Your task to perform on an android device: turn on sleep mode Image 0: 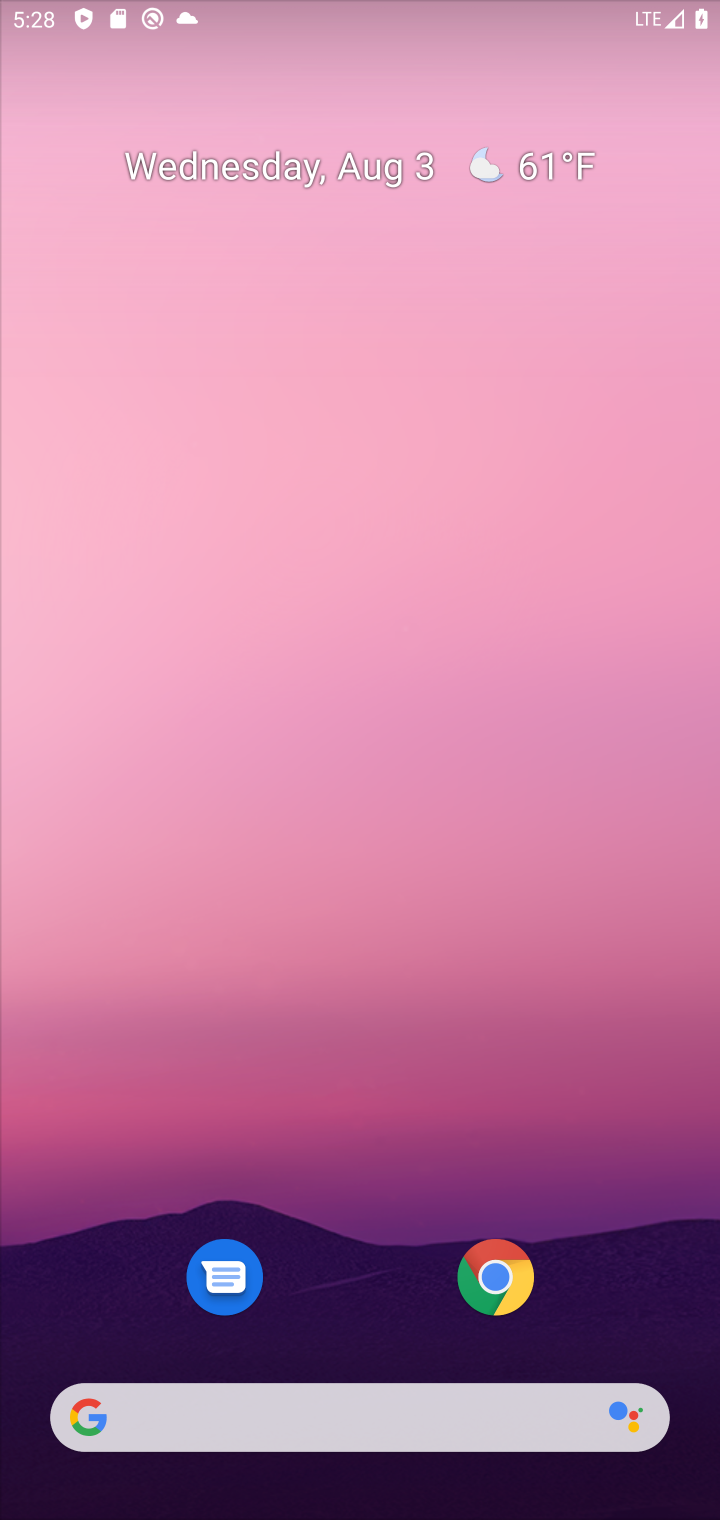
Step 0: press back button
Your task to perform on an android device: turn on sleep mode Image 1: 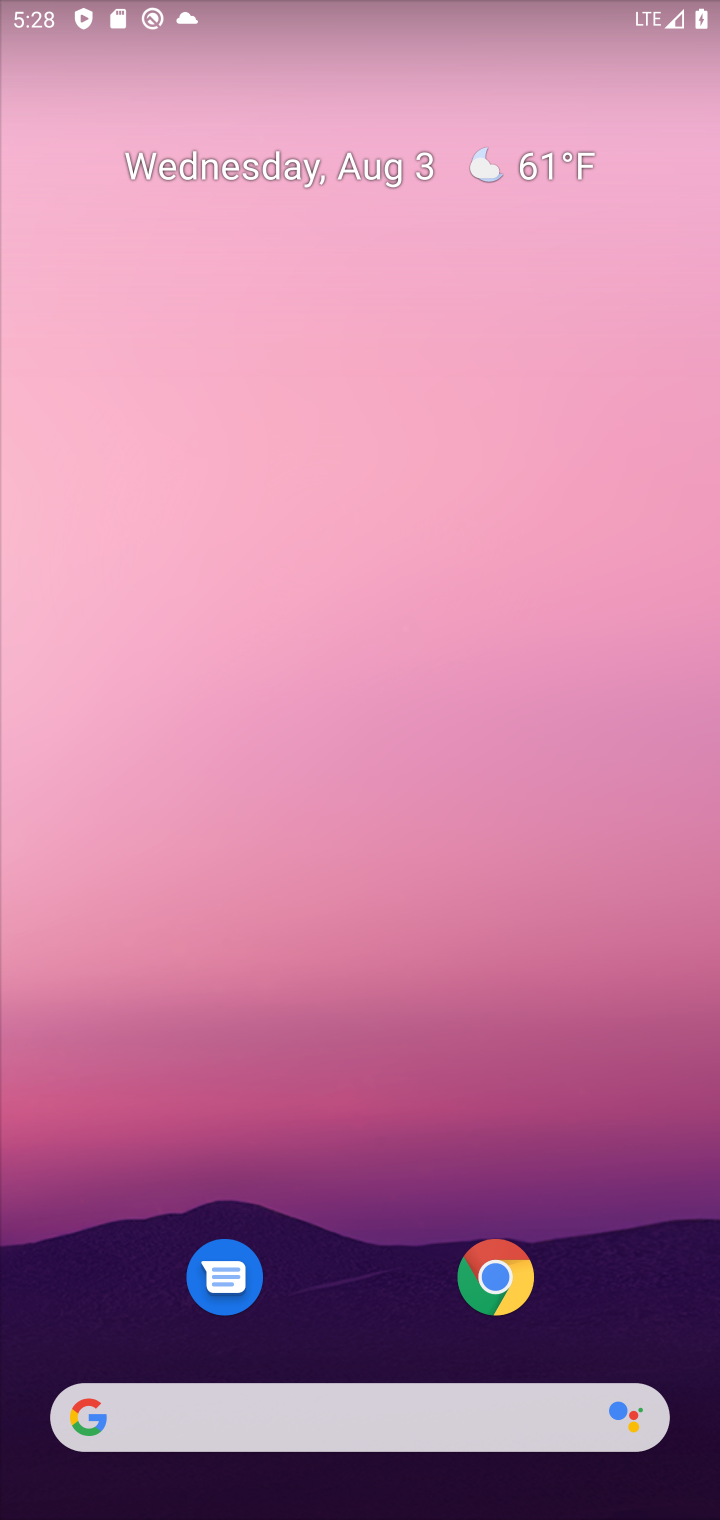
Step 1: drag from (403, 1215) to (226, 920)
Your task to perform on an android device: turn on sleep mode Image 2: 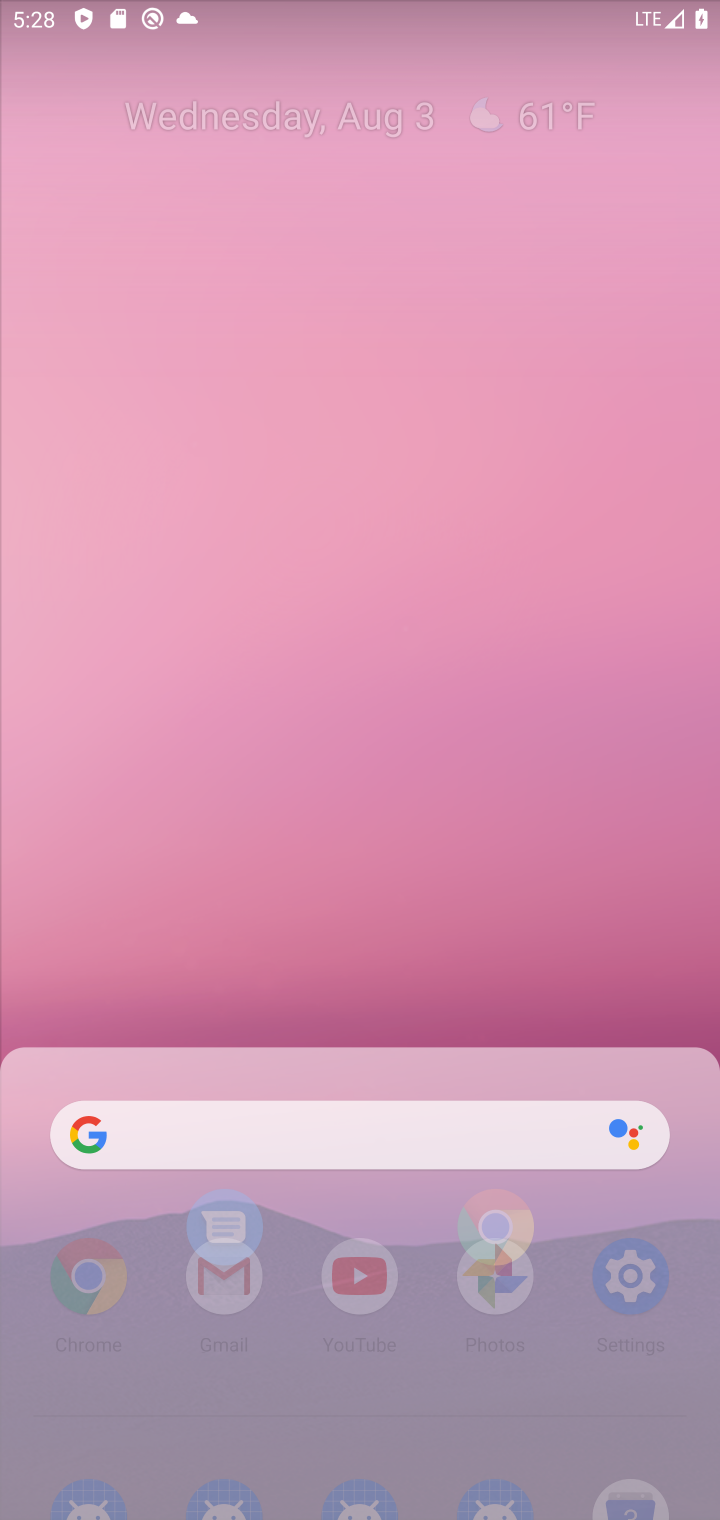
Step 2: click (630, 357)
Your task to perform on an android device: turn on sleep mode Image 3: 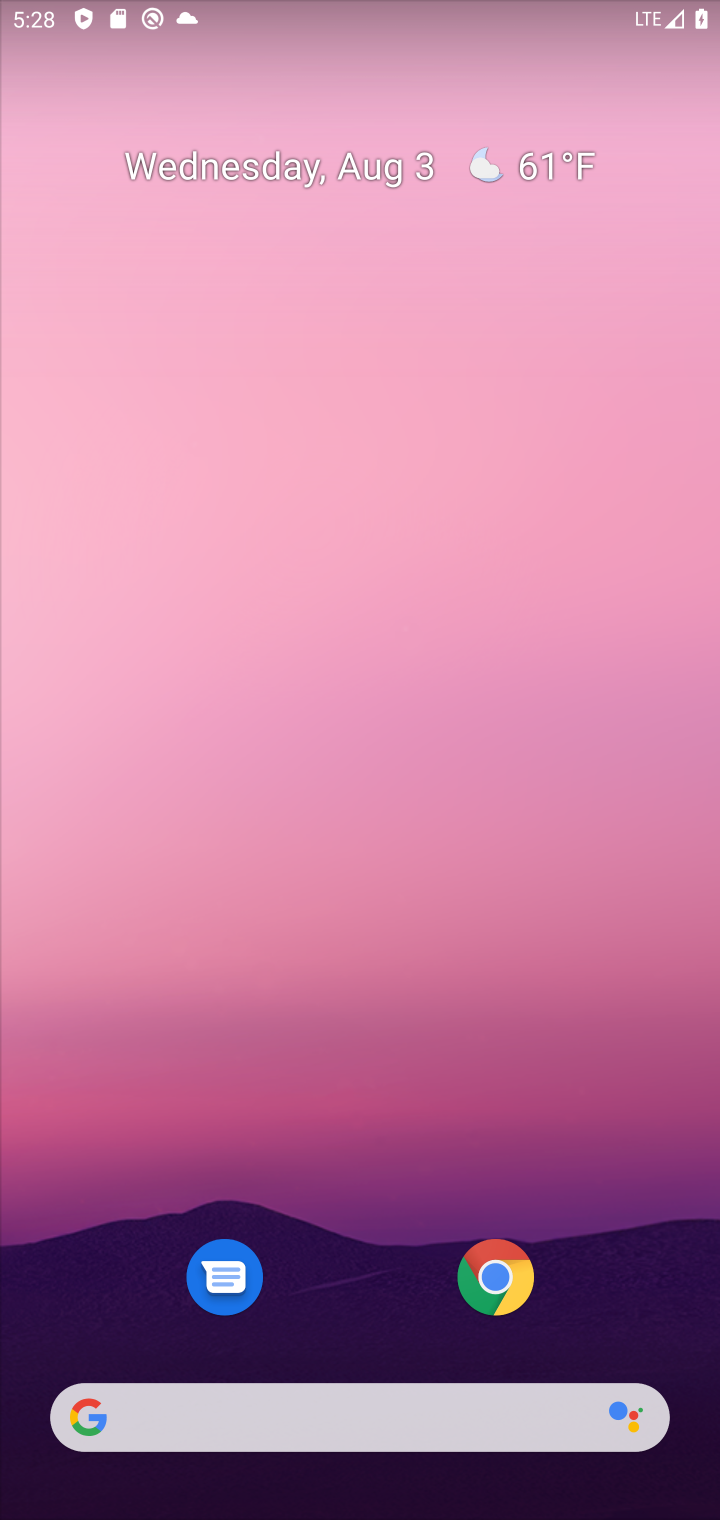
Step 3: drag from (423, 1072) to (398, 326)
Your task to perform on an android device: turn on sleep mode Image 4: 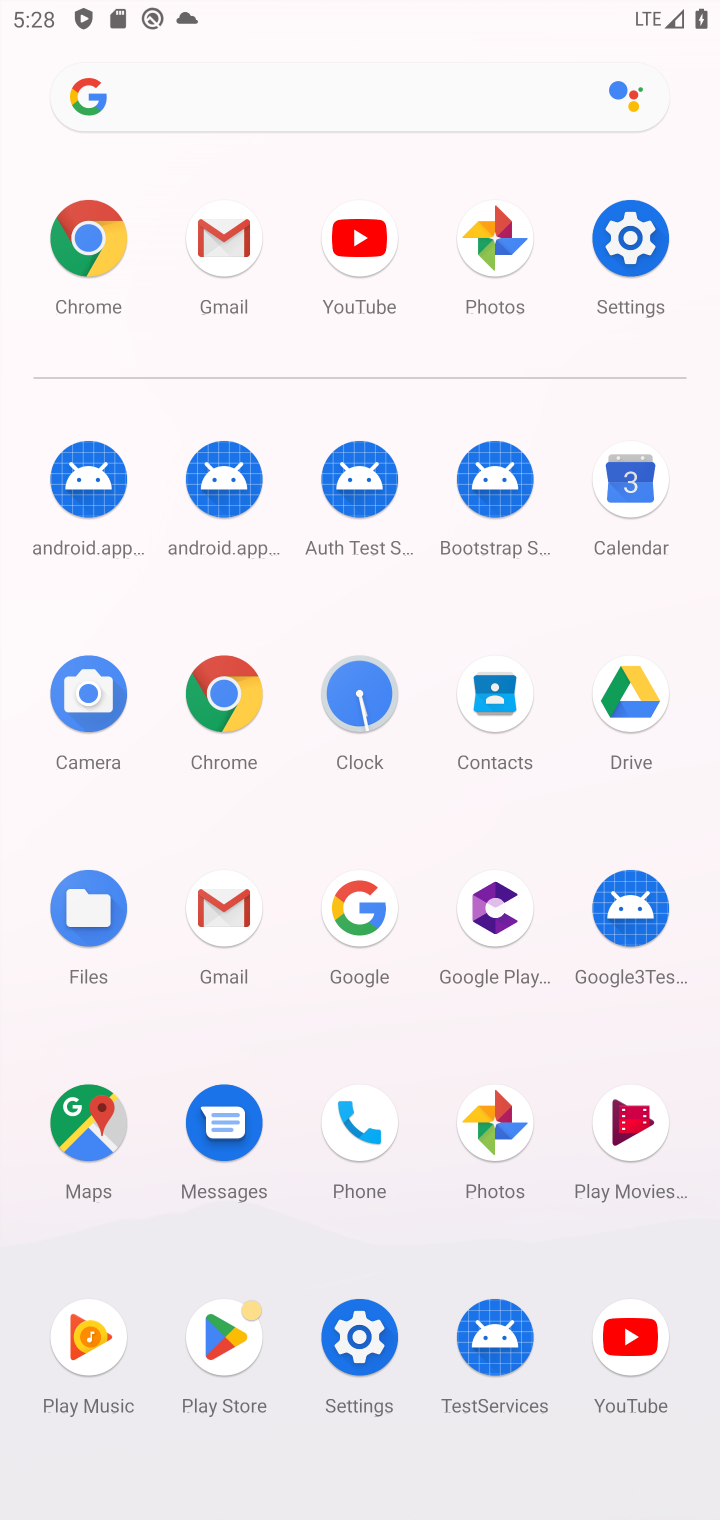
Step 4: click (649, 210)
Your task to perform on an android device: turn on sleep mode Image 5: 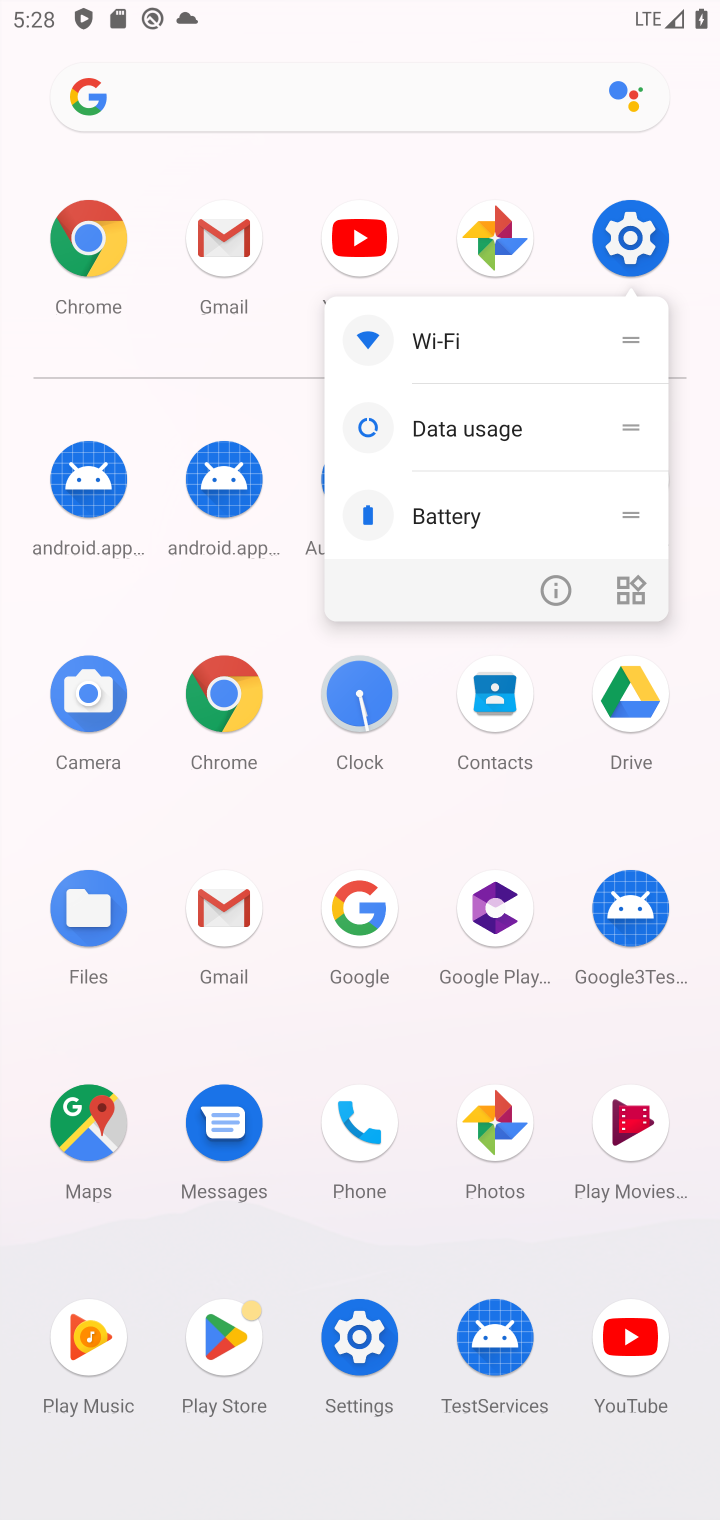
Step 5: click (638, 226)
Your task to perform on an android device: turn on sleep mode Image 6: 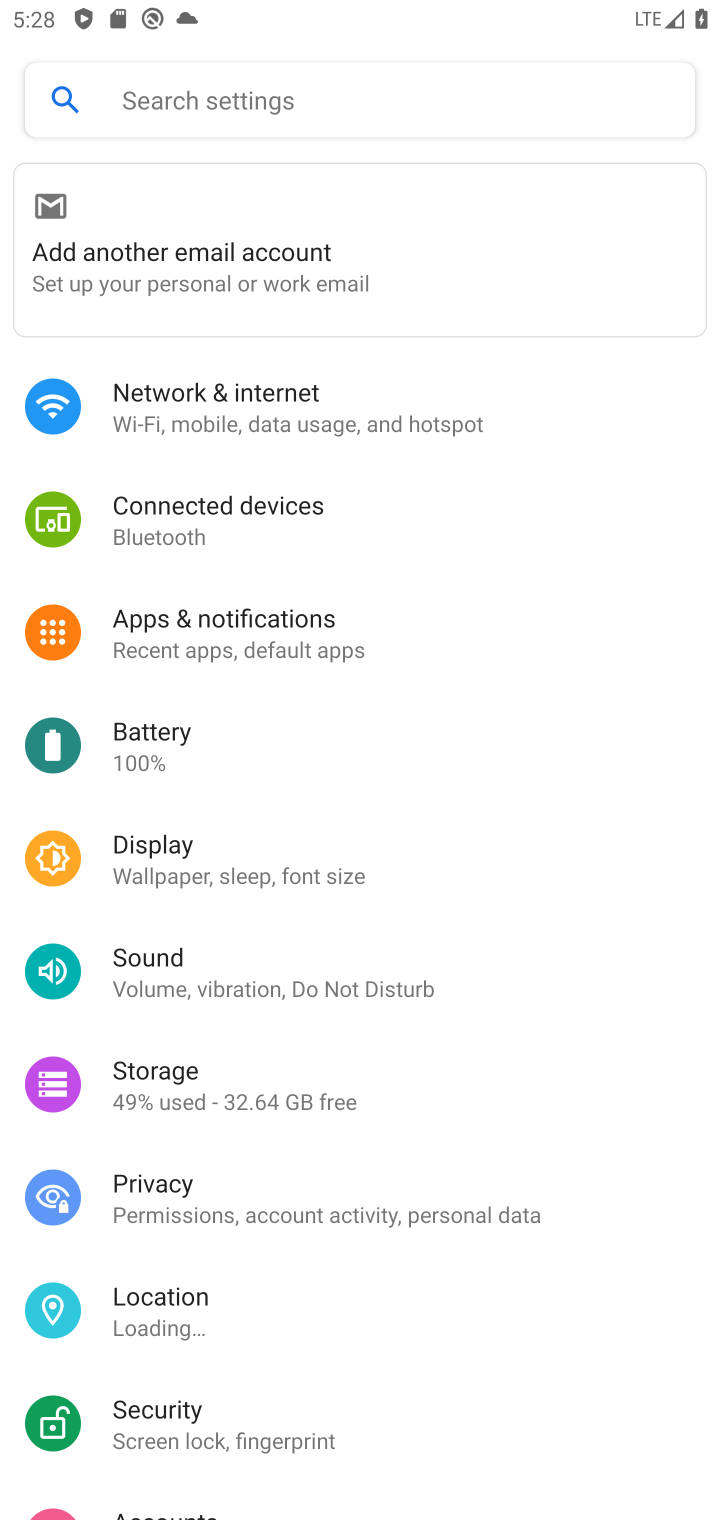
Step 6: click (270, 99)
Your task to perform on an android device: turn on sleep mode Image 7: 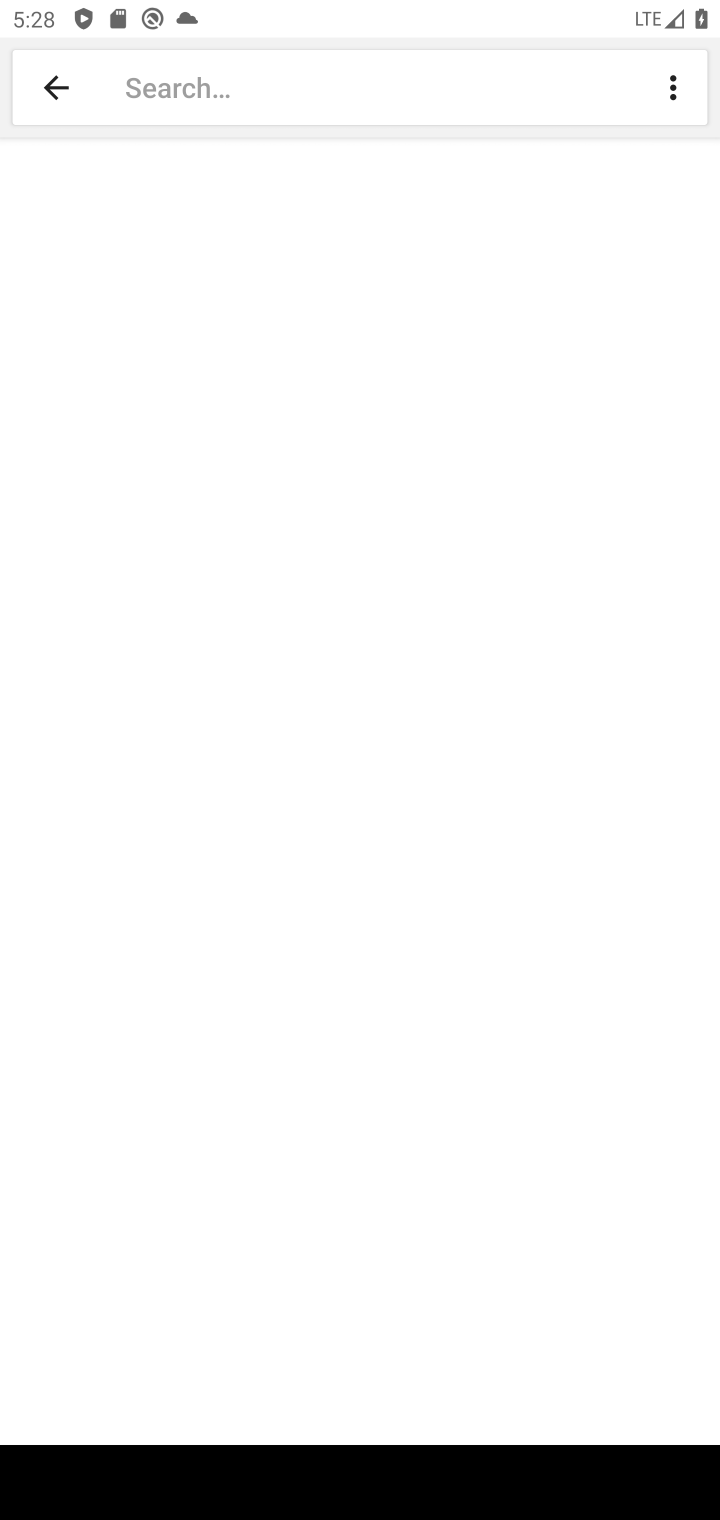
Step 7: type "sleep mode"
Your task to perform on an android device: turn on sleep mode Image 8: 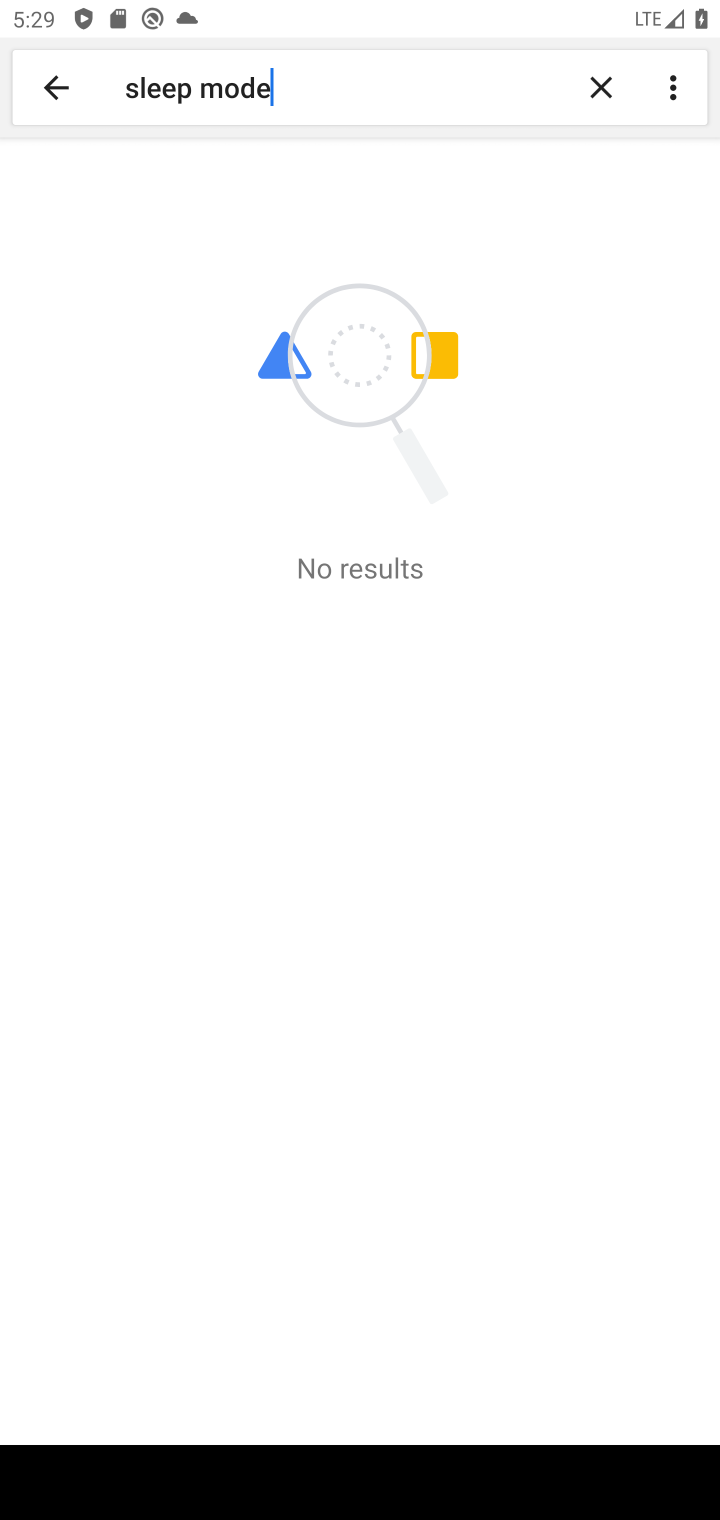
Step 8: type " "
Your task to perform on an android device: turn on sleep mode Image 9: 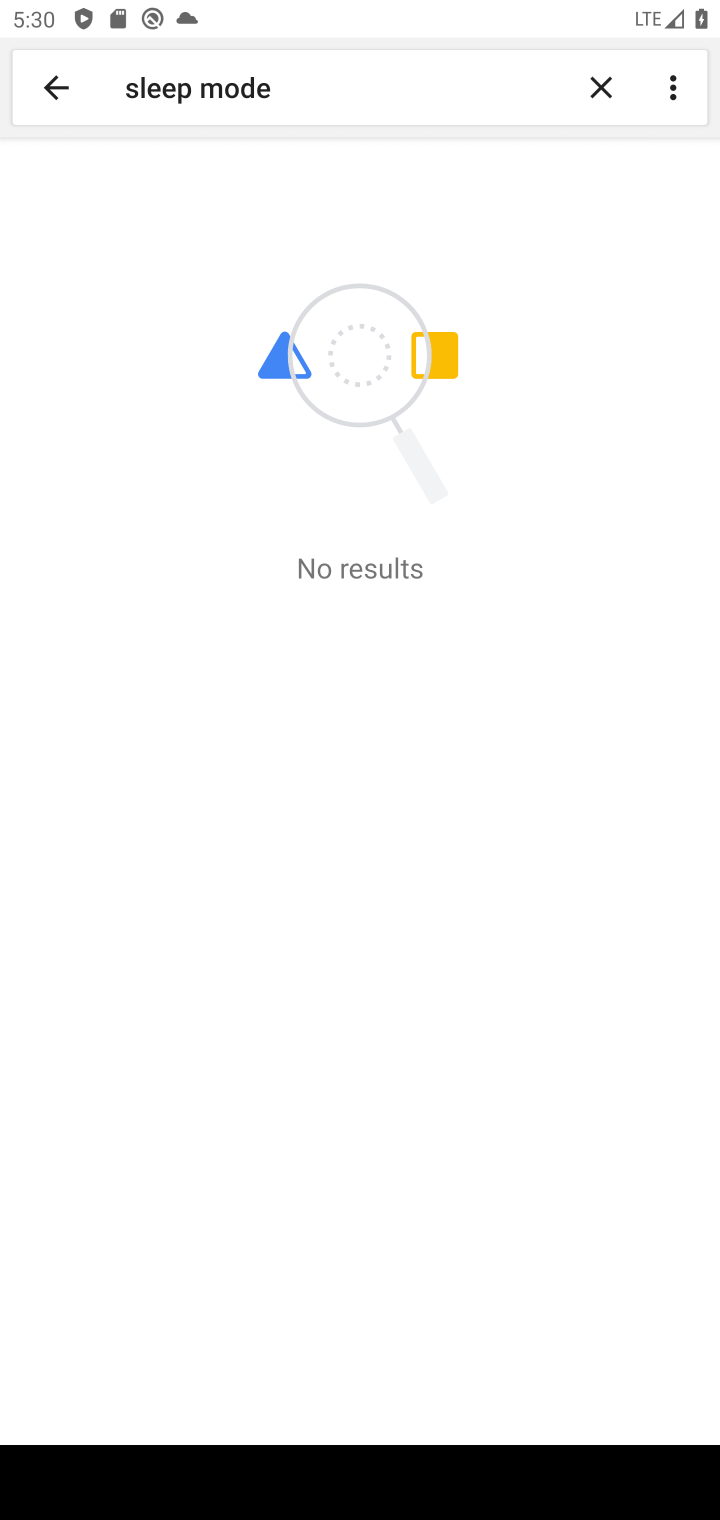
Step 9: task complete